Your task to perform on an android device: turn off data saver in the chrome app Image 0: 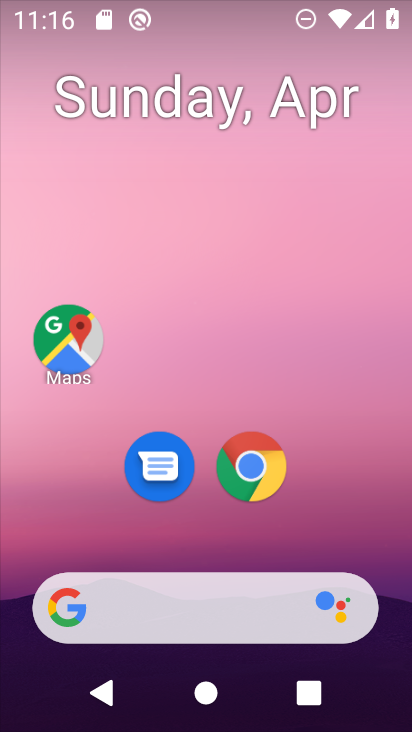
Step 0: drag from (345, 524) to (376, 97)
Your task to perform on an android device: turn off data saver in the chrome app Image 1: 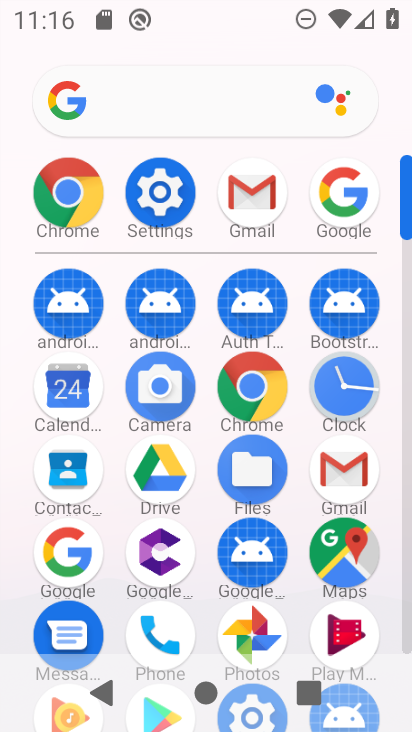
Step 1: click (79, 217)
Your task to perform on an android device: turn off data saver in the chrome app Image 2: 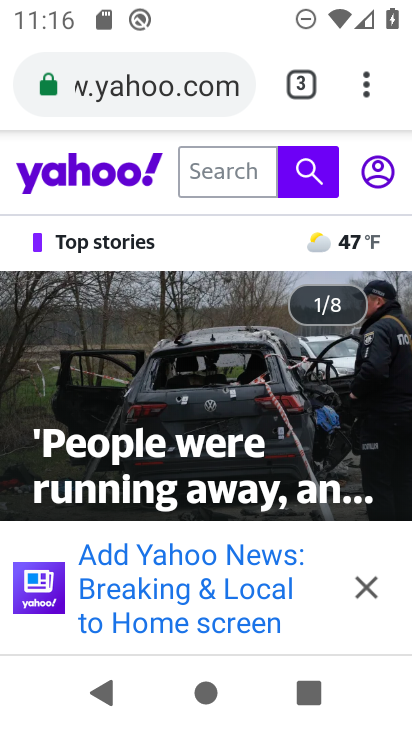
Step 2: click (368, 74)
Your task to perform on an android device: turn off data saver in the chrome app Image 3: 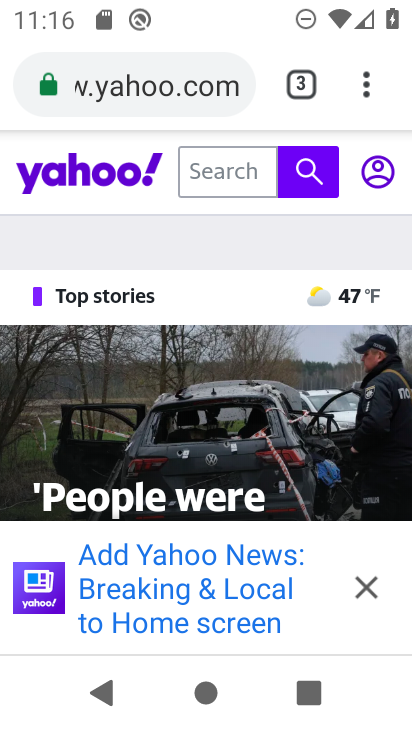
Step 3: click (368, 74)
Your task to perform on an android device: turn off data saver in the chrome app Image 4: 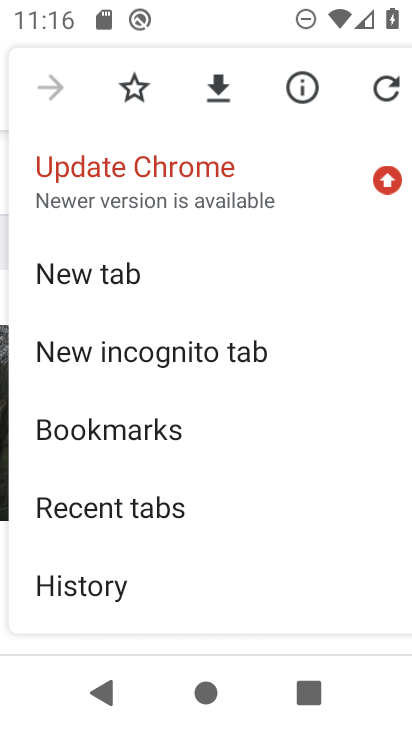
Step 4: drag from (299, 537) to (303, 342)
Your task to perform on an android device: turn off data saver in the chrome app Image 5: 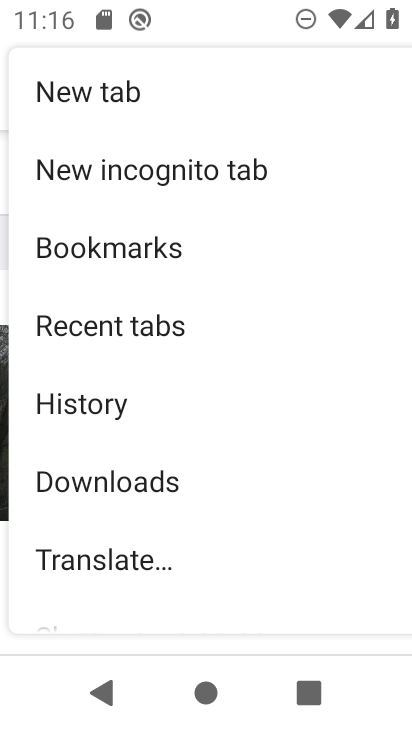
Step 5: drag from (306, 474) to (303, 297)
Your task to perform on an android device: turn off data saver in the chrome app Image 6: 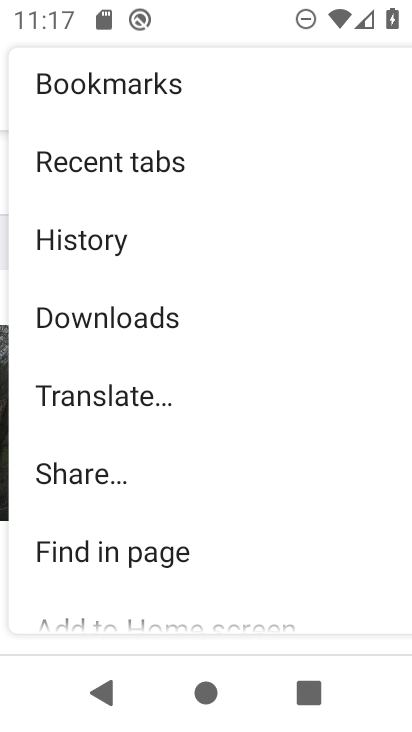
Step 6: drag from (287, 518) to (296, 278)
Your task to perform on an android device: turn off data saver in the chrome app Image 7: 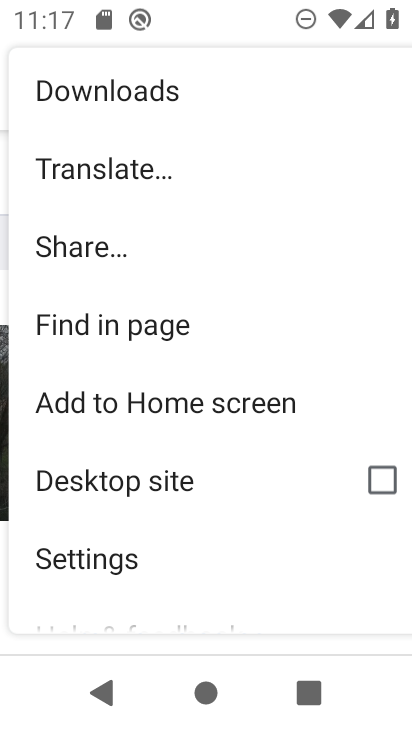
Step 7: click (132, 568)
Your task to perform on an android device: turn off data saver in the chrome app Image 8: 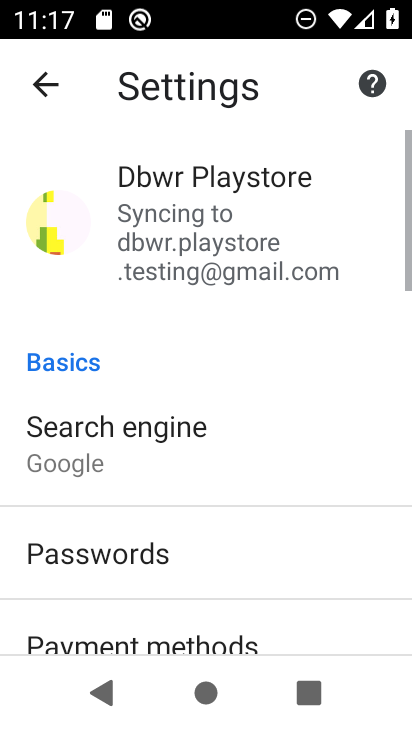
Step 8: drag from (263, 480) to (277, 357)
Your task to perform on an android device: turn off data saver in the chrome app Image 9: 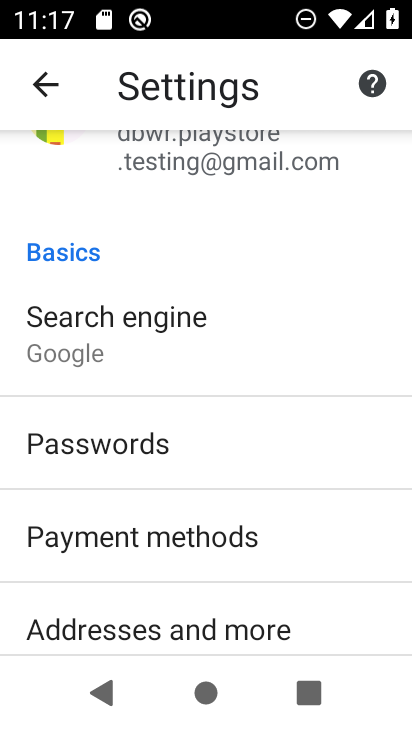
Step 9: drag from (296, 588) to (307, 332)
Your task to perform on an android device: turn off data saver in the chrome app Image 10: 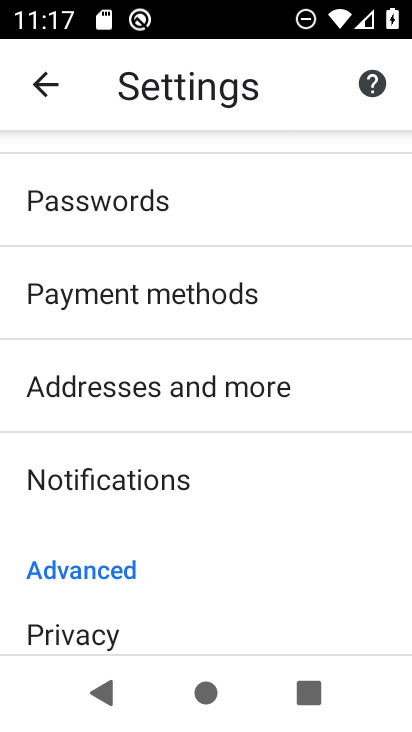
Step 10: drag from (296, 574) to (328, 288)
Your task to perform on an android device: turn off data saver in the chrome app Image 11: 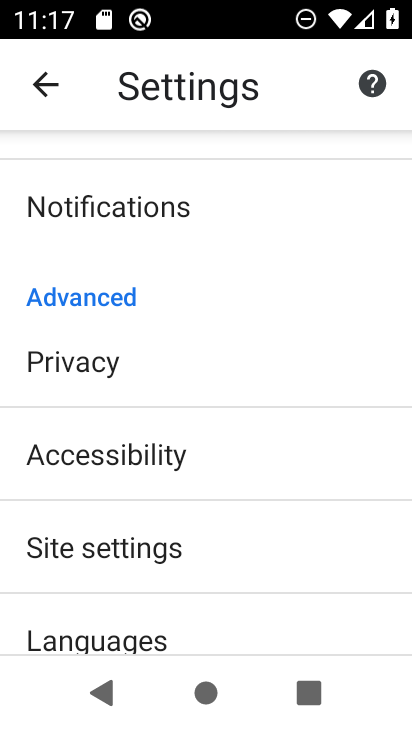
Step 11: drag from (265, 569) to (266, 276)
Your task to perform on an android device: turn off data saver in the chrome app Image 12: 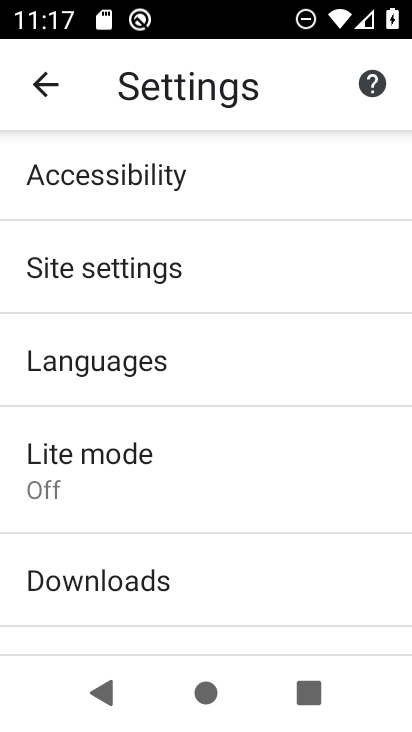
Step 12: click (152, 495)
Your task to perform on an android device: turn off data saver in the chrome app Image 13: 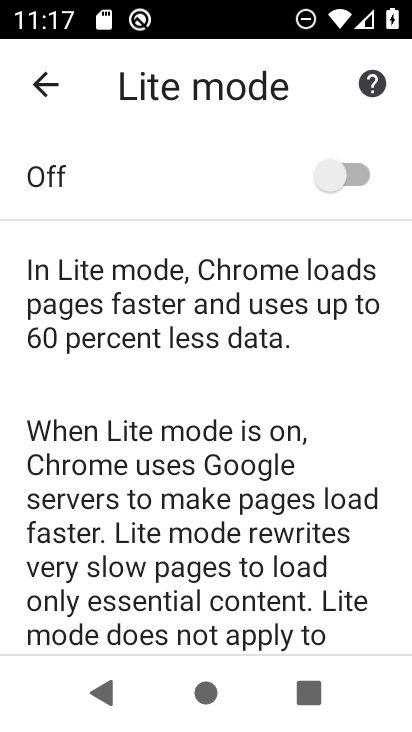
Step 13: task complete